Your task to perform on an android device: empty trash in the gmail app Image 0: 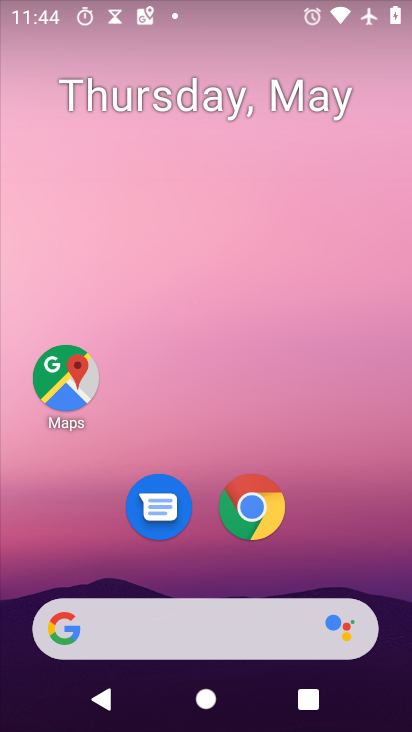
Step 0: drag from (340, 555) to (304, 13)
Your task to perform on an android device: empty trash in the gmail app Image 1: 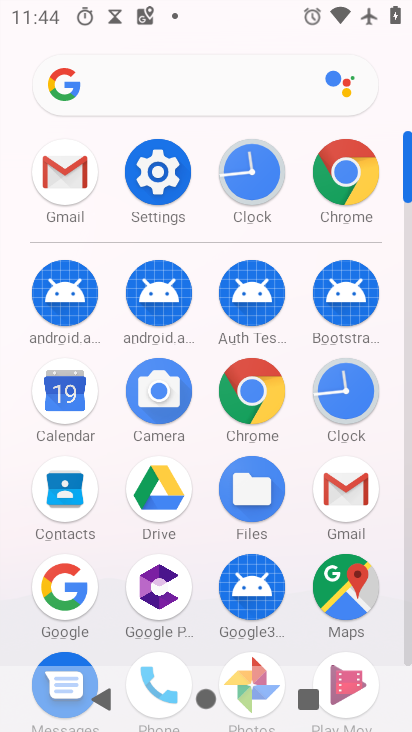
Step 1: drag from (12, 594) to (14, 324)
Your task to perform on an android device: empty trash in the gmail app Image 2: 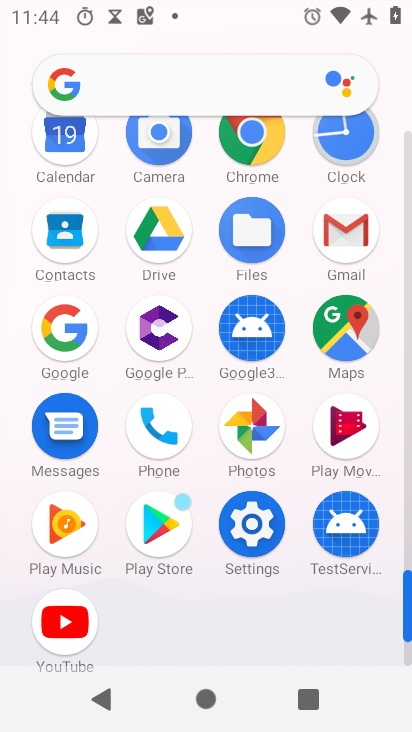
Step 2: drag from (17, 416) to (30, 217)
Your task to perform on an android device: empty trash in the gmail app Image 3: 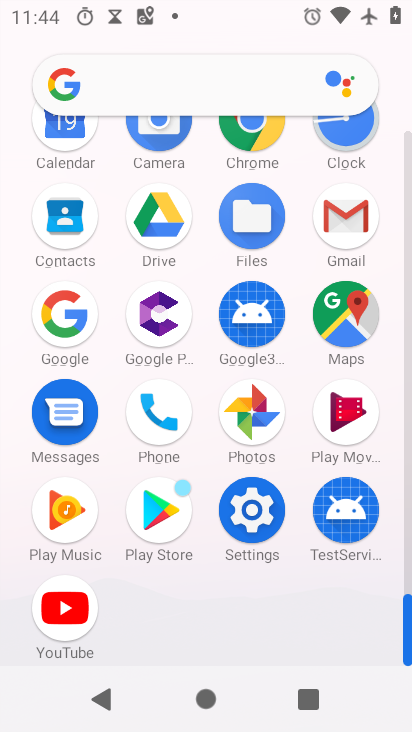
Step 3: drag from (4, 469) to (4, 220)
Your task to perform on an android device: empty trash in the gmail app Image 4: 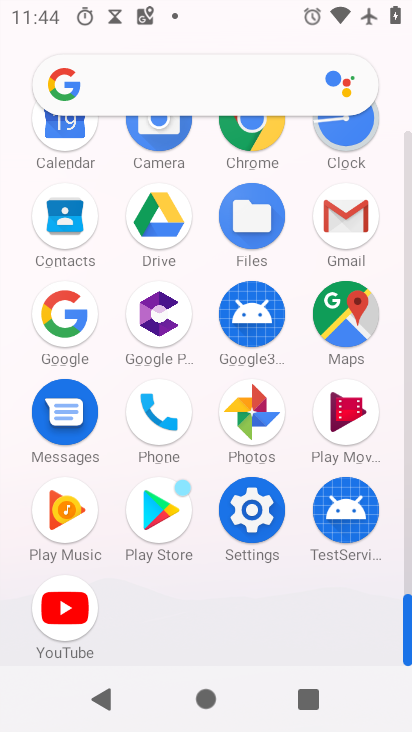
Step 4: drag from (12, 163) to (11, 536)
Your task to perform on an android device: empty trash in the gmail app Image 5: 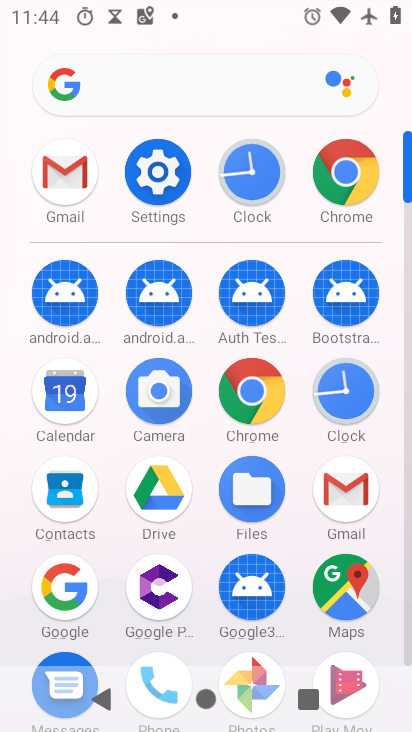
Step 5: click (342, 483)
Your task to perform on an android device: empty trash in the gmail app Image 6: 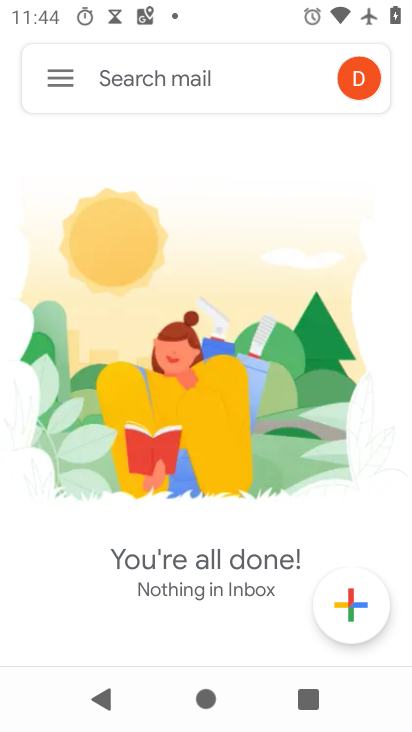
Step 6: click (59, 75)
Your task to perform on an android device: empty trash in the gmail app Image 7: 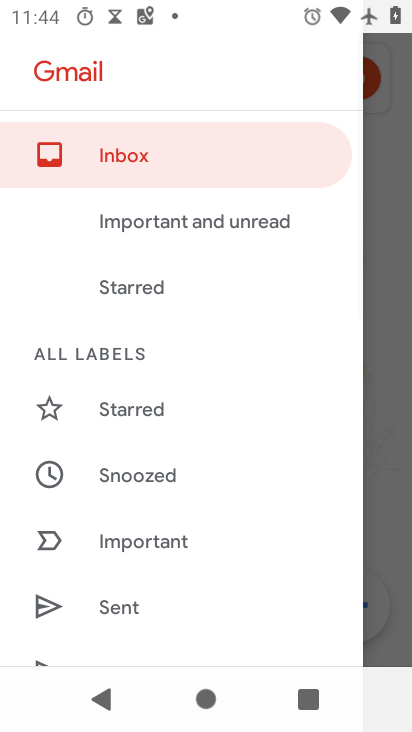
Step 7: drag from (177, 498) to (192, 157)
Your task to perform on an android device: empty trash in the gmail app Image 8: 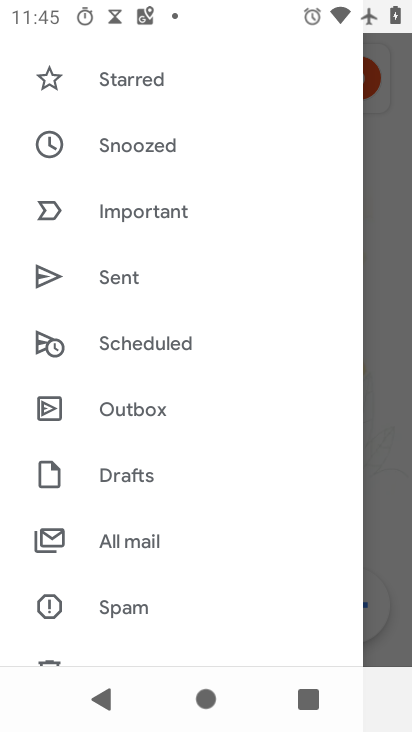
Step 8: drag from (164, 578) to (236, 116)
Your task to perform on an android device: empty trash in the gmail app Image 9: 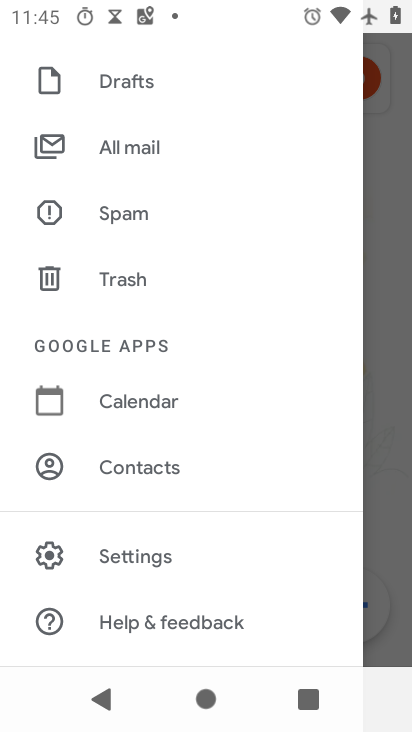
Step 9: click (125, 278)
Your task to perform on an android device: empty trash in the gmail app Image 10: 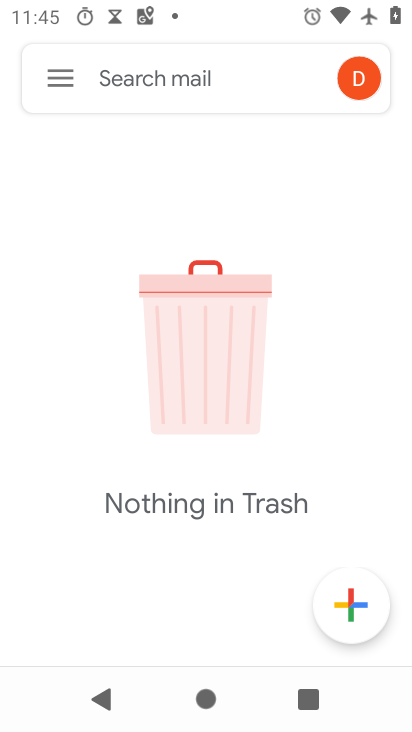
Step 10: task complete